Your task to perform on an android device: read, delete, or share a saved page in the chrome app Image 0: 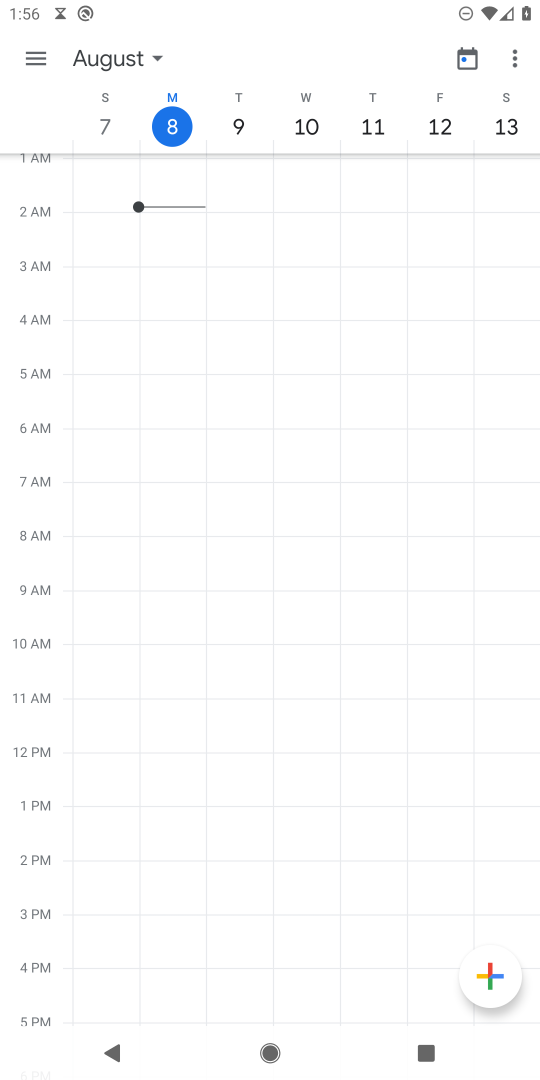
Step 0: press home button
Your task to perform on an android device: read, delete, or share a saved page in the chrome app Image 1: 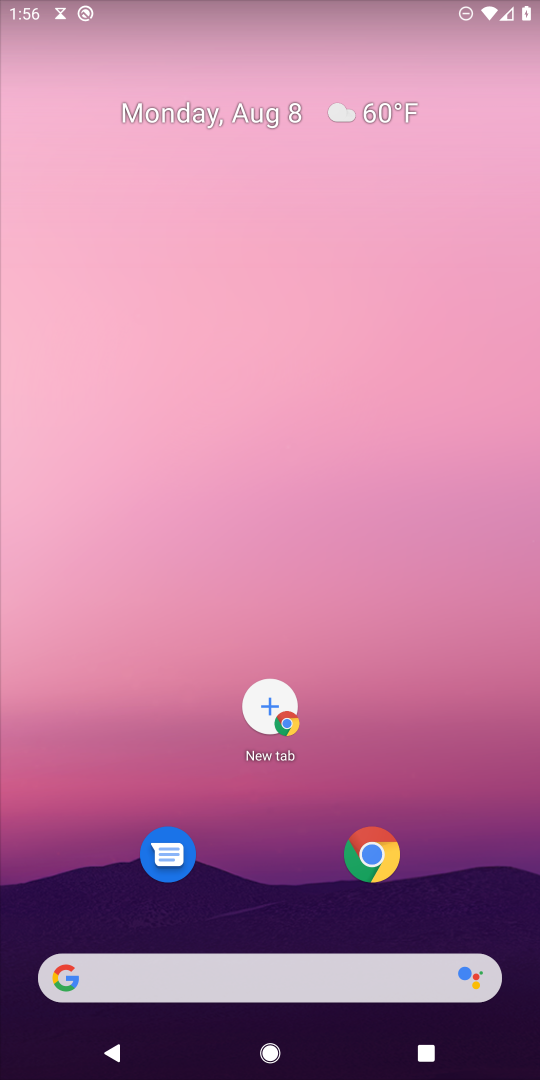
Step 1: click (385, 843)
Your task to perform on an android device: read, delete, or share a saved page in the chrome app Image 2: 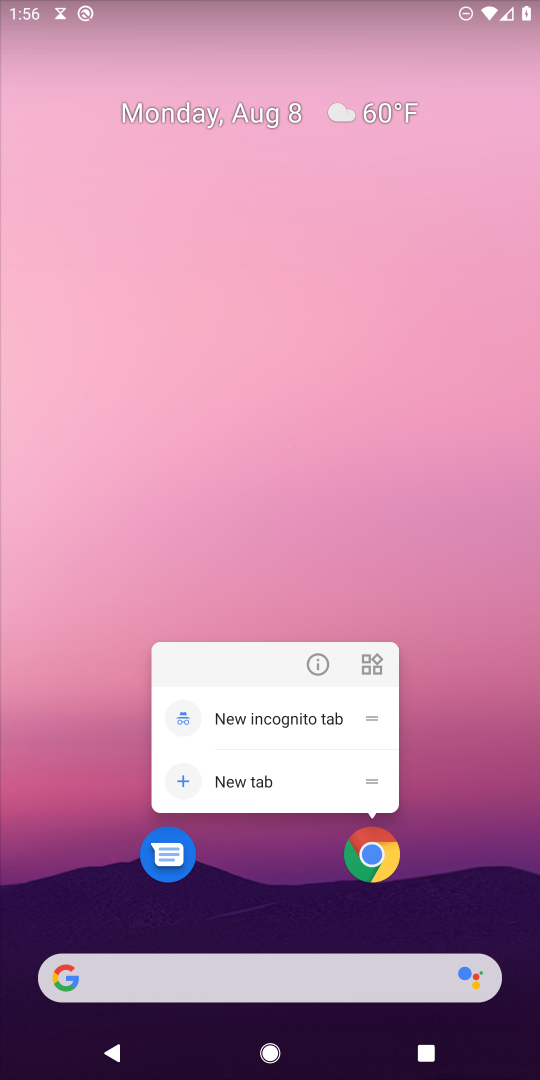
Step 2: click (382, 859)
Your task to perform on an android device: read, delete, or share a saved page in the chrome app Image 3: 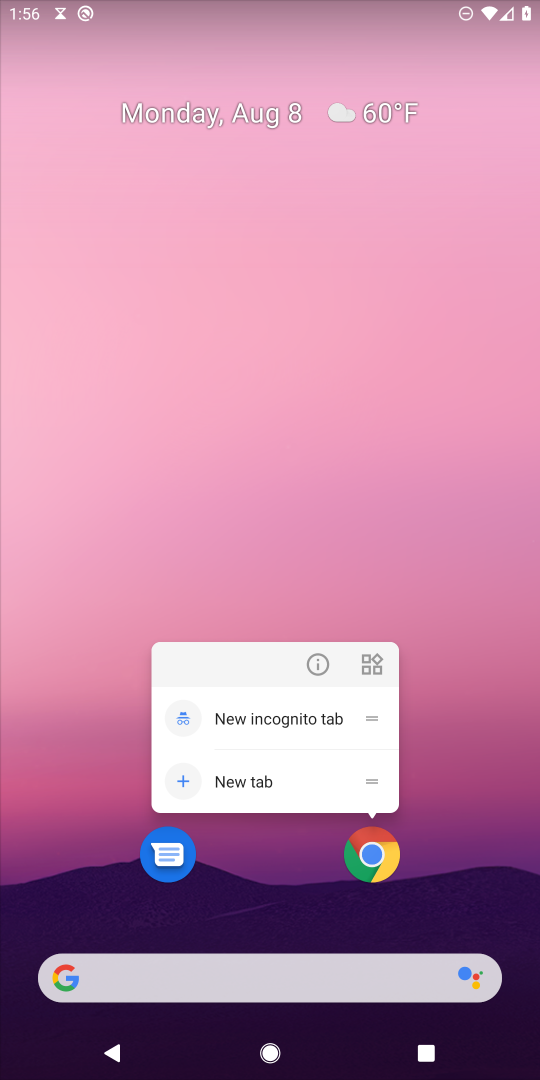
Step 3: click (363, 838)
Your task to perform on an android device: read, delete, or share a saved page in the chrome app Image 4: 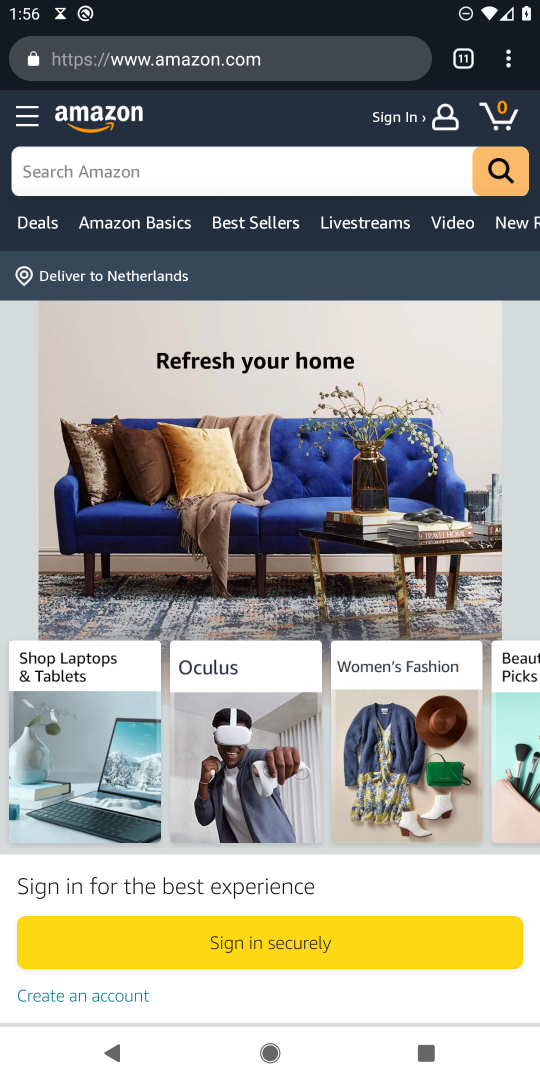
Step 4: drag from (521, 66) to (313, 430)
Your task to perform on an android device: read, delete, or share a saved page in the chrome app Image 5: 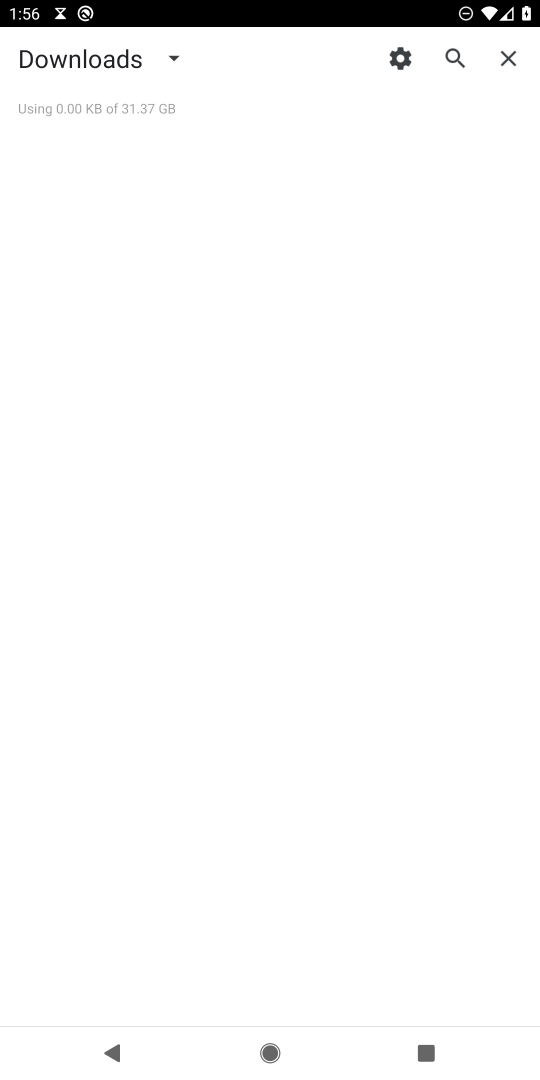
Step 5: click (172, 55)
Your task to perform on an android device: read, delete, or share a saved page in the chrome app Image 6: 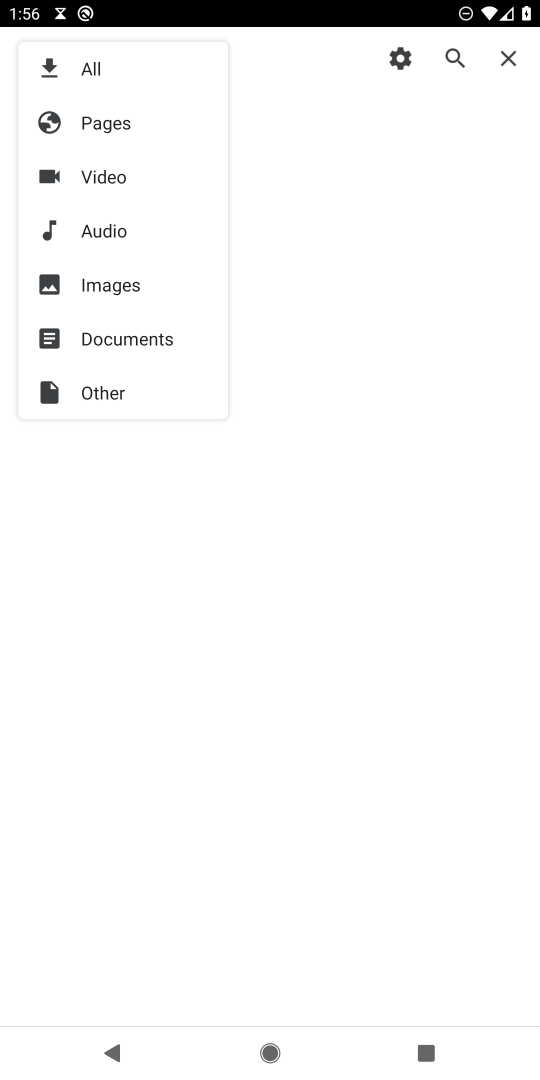
Step 6: click (93, 60)
Your task to perform on an android device: read, delete, or share a saved page in the chrome app Image 7: 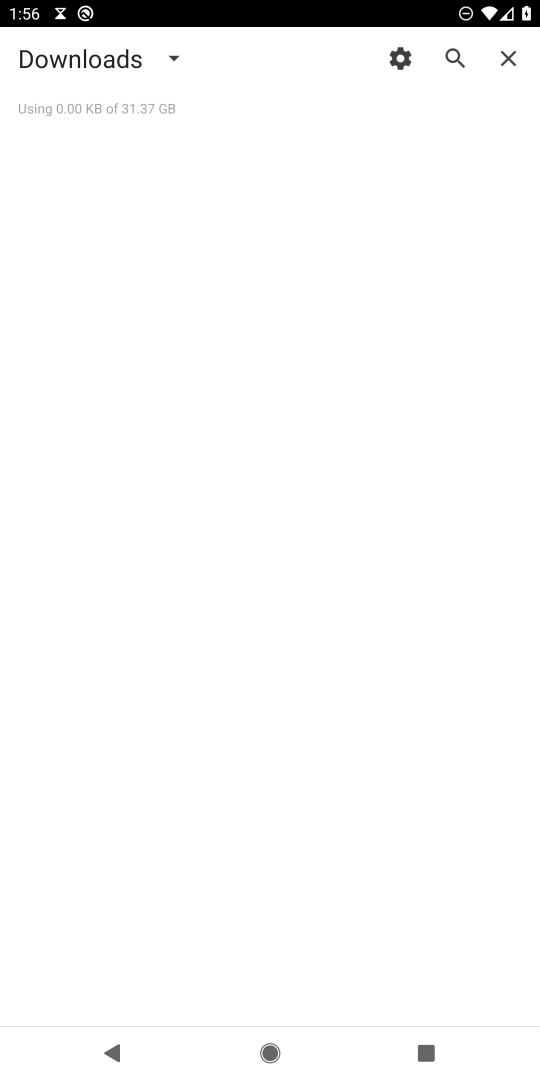
Step 7: task complete